Your task to perform on an android device: Do I have any events this weekend? Image 0: 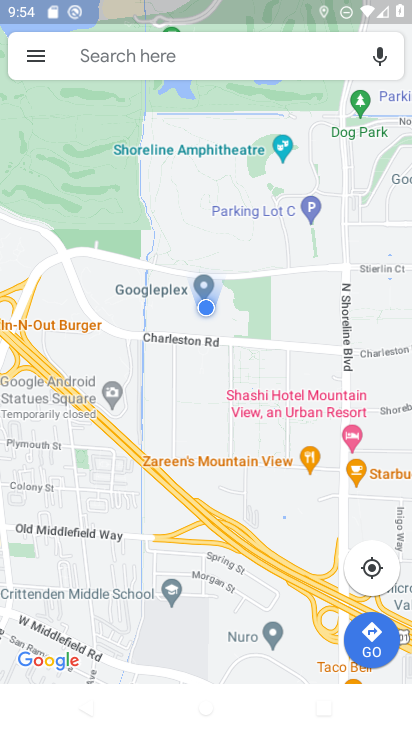
Step 0: press home button
Your task to perform on an android device: Do I have any events this weekend? Image 1: 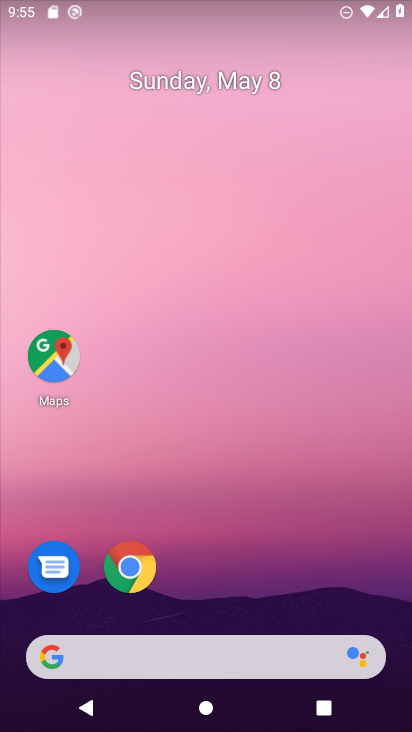
Step 1: drag from (237, 636) to (251, 233)
Your task to perform on an android device: Do I have any events this weekend? Image 2: 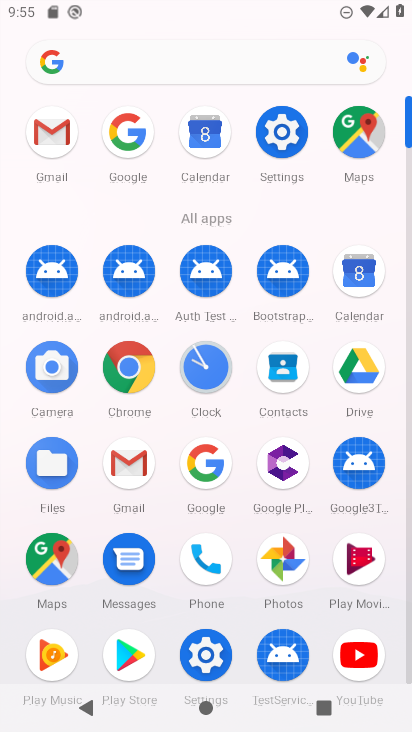
Step 2: click (342, 277)
Your task to perform on an android device: Do I have any events this weekend? Image 3: 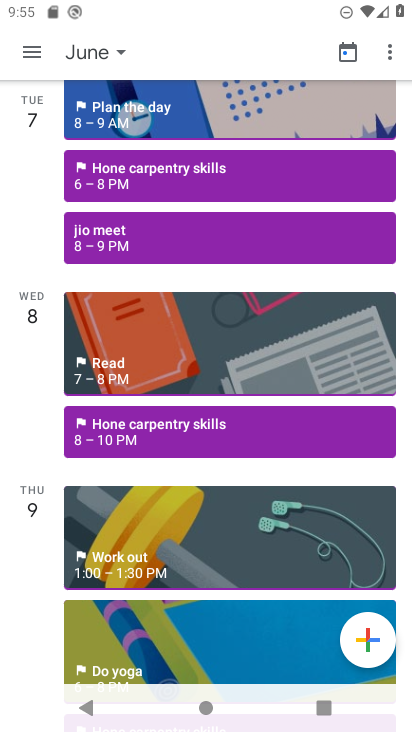
Step 3: click (91, 54)
Your task to perform on an android device: Do I have any events this weekend? Image 4: 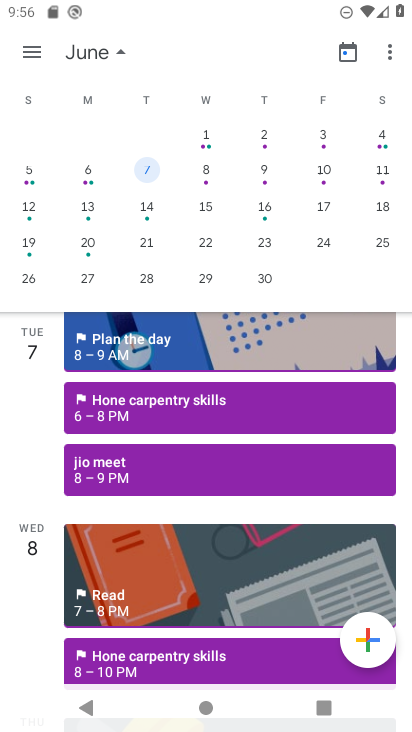
Step 4: drag from (42, 226) to (409, 284)
Your task to perform on an android device: Do I have any events this weekend? Image 5: 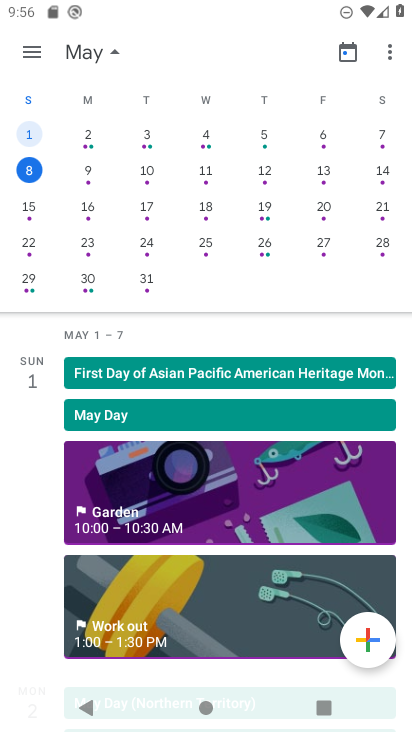
Step 5: click (324, 174)
Your task to perform on an android device: Do I have any events this weekend? Image 6: 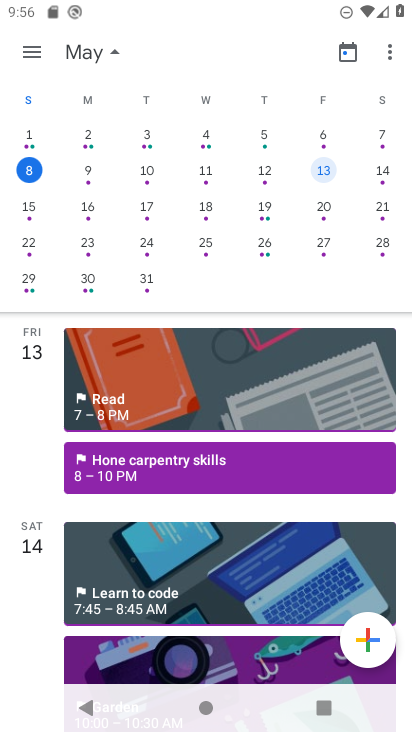
Step 6: click (385, 172)
Your task to perform on an android device: Do I have any events this weekend? Image 7: 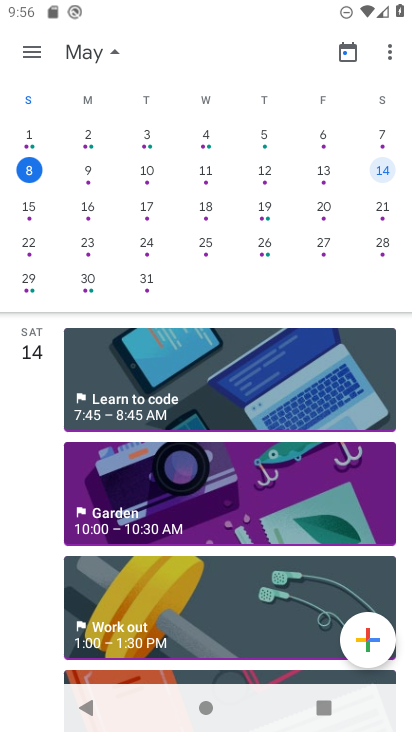
Step 7: click (148, 385)
Your task to perform on an android device: Do I have any events this weekend? Image 8: 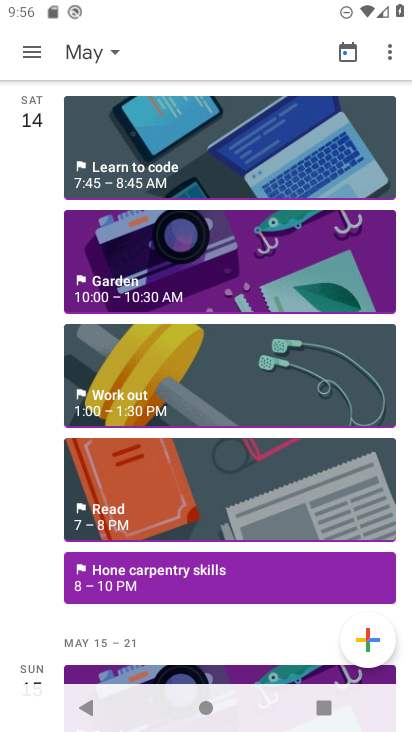
Step 8: click (160, 182)
Your task to perform on an android device: Do I have any events this weekend? Image 9: 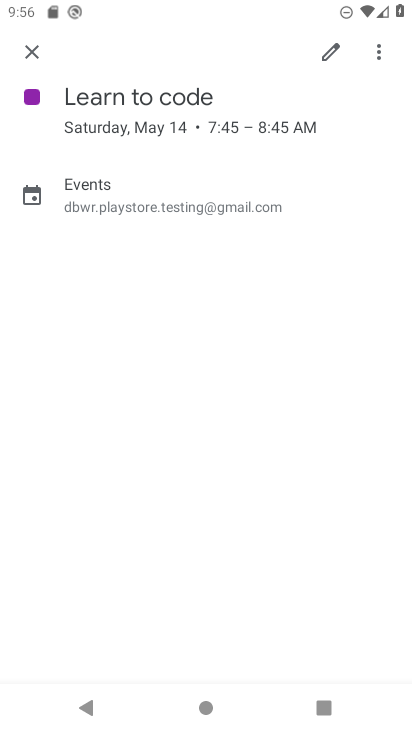
Step 9: task complete